Your task to perform on an android device: toggle show notifications on the lock screen Image 0: 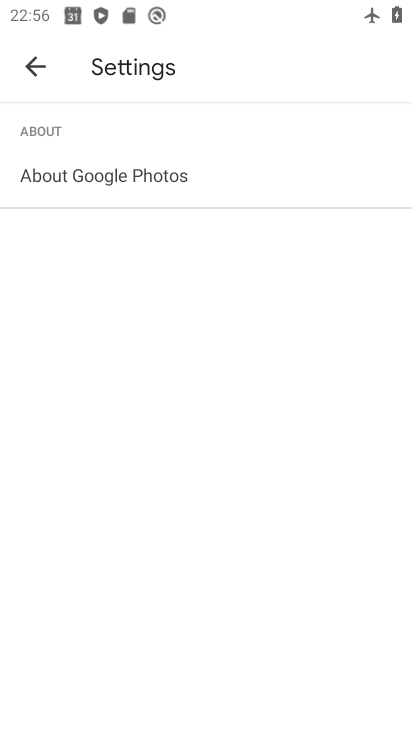
Step 0: press home button
Your task to perform on an android device: toggle show notifications on the lock screen Image 1: 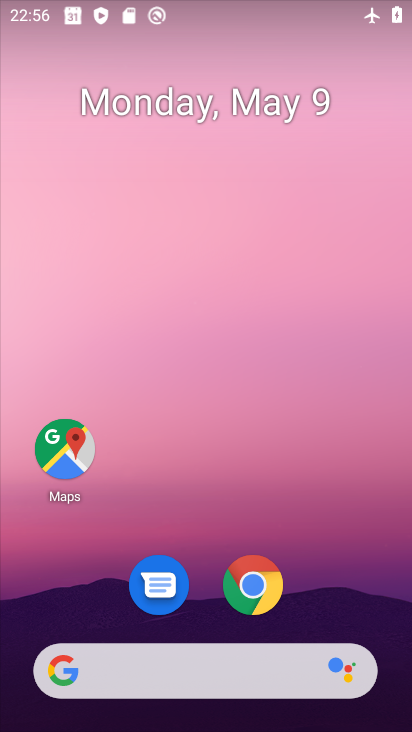
Step 1: drag from (286, 221) to (284, 78)
Your task to perform on an android device: toggle show notifications on the lock screen Image 2: 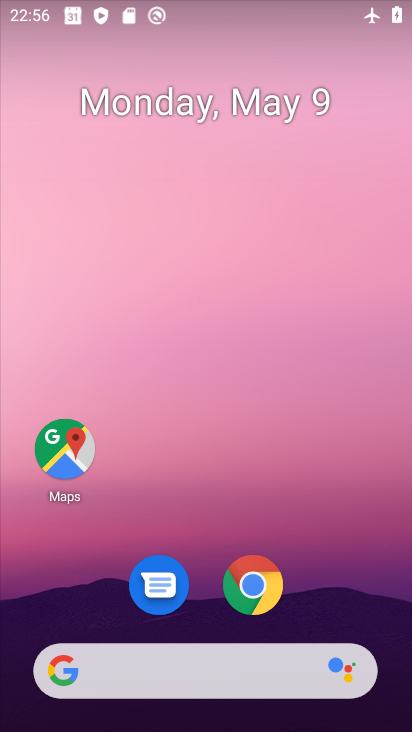
Step 2: drag from (371, 556) to (348, 66)
Your task to perform on an android device: toggle show notifications on the lock screen Image 3: 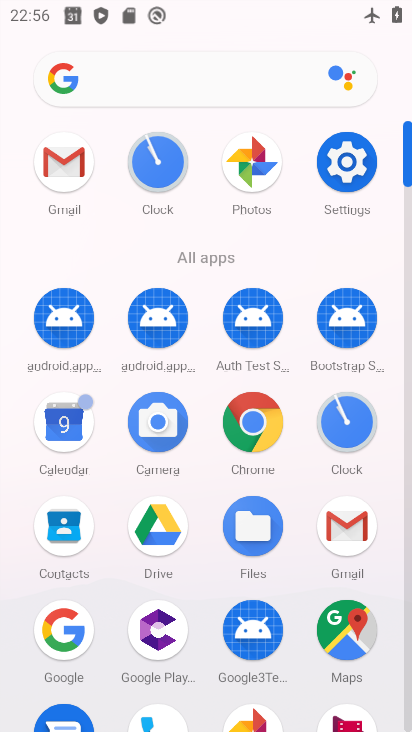
Step 3: click (338, 163)
Your task to perform on an android device: toggle show notifications on the lock screen Image 4: 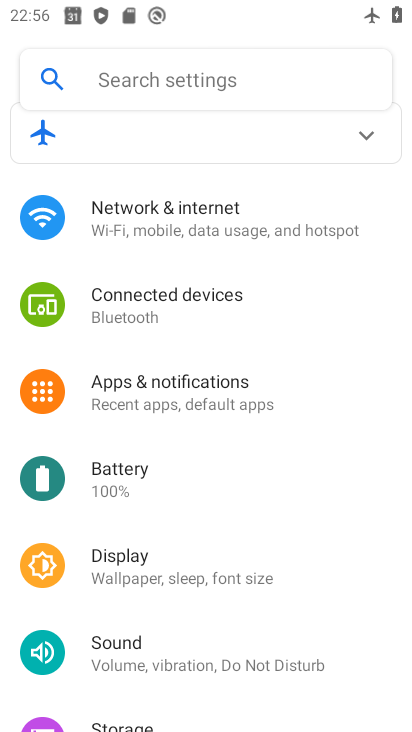
Step 4: click (230, 389)
Your task to perform on an android device: toggle show notifications on the lock screen Image 5: 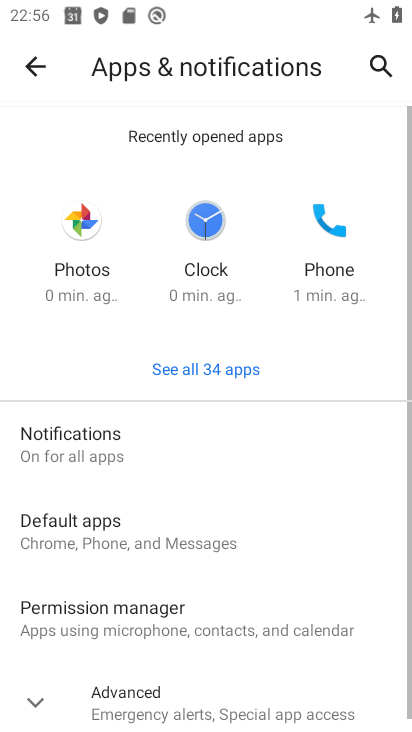
Step 5: click (186, 441)
Your task to perform on an android device: toggle show notifications on the lock screen Image 6: 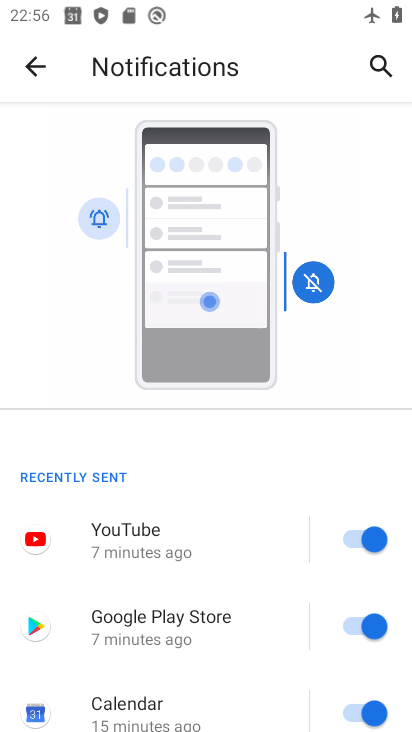
Step 6: drag from (250, 607) to (237, 120)
Your task to perform on an android device: toggle show notifications on the lock screen Image 7: 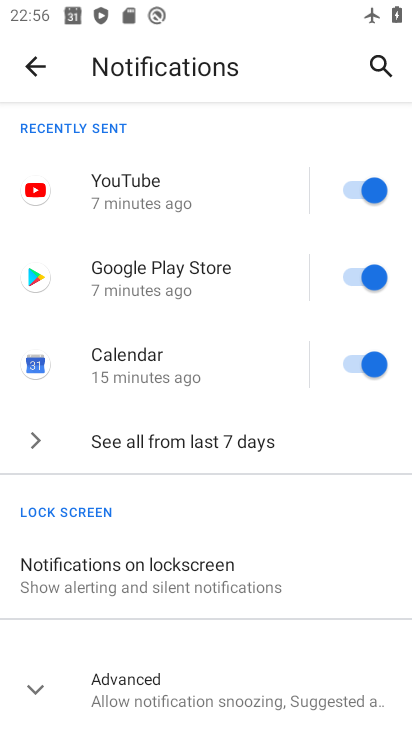
Step 7: click (135, 584)
Your task to perform on an android device: toggle show notifications on the lock screen Image 8: 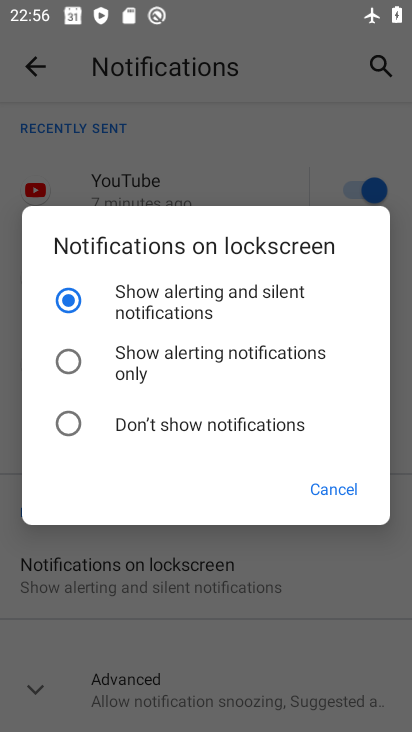
Step 8: click (62, 416)
Your task to perform on an android device: toggle show notifications on the lock screen Image 9: 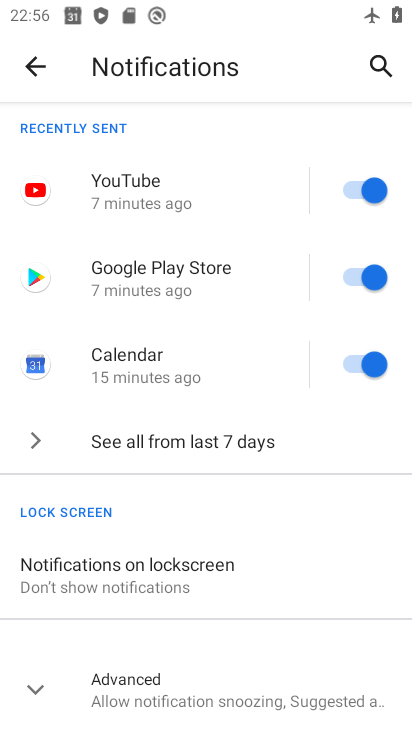
Step 9: task complete